Your task to perform on an android device: toggle javascript in the chrome app Image 0: 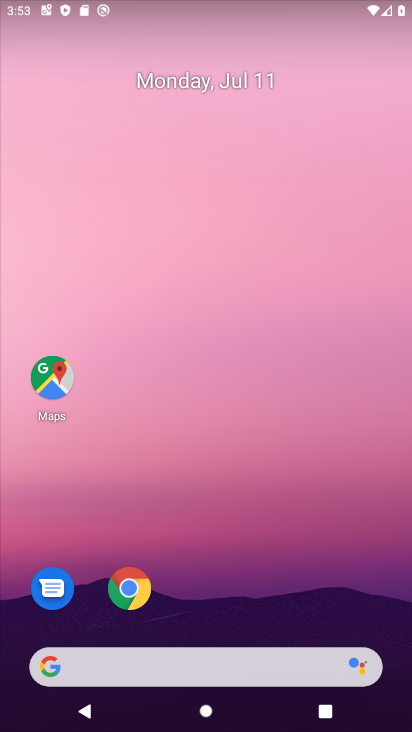
Step 0: press home button
Your task to perform on an android device: toggle javascript in the chrome app Image 1: 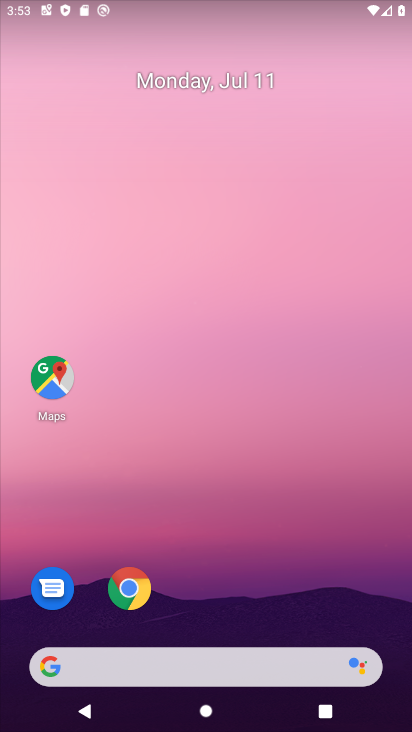
Step 1: drag from (308, 541) to (287, 132)
Your task to perform on an android device: toggle javascript in the chrome app Image 2: 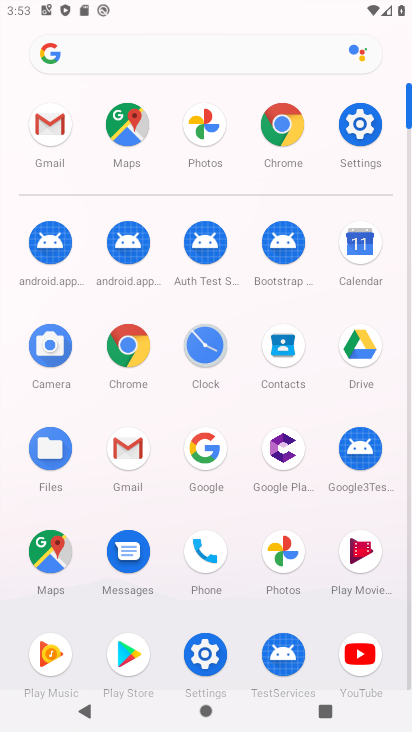
Step 2: click (126, 336)
Your task to perform on an android device: toggle javascript in the chrome app Image 3: 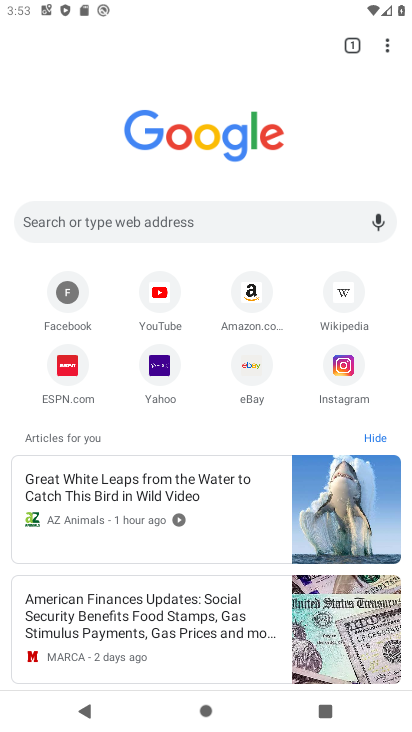
Step 3: drag from (391, 45) to (242, 432)
Your task to perform on an android device: toggle javascript in the chrome app Image 4: 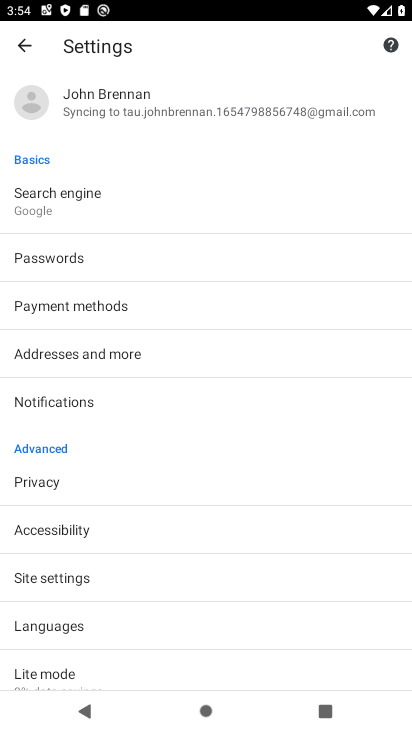
Step 4: click (79, 583)
Your task to perform on an android device: toggle javascript in the chrome app Image 5: 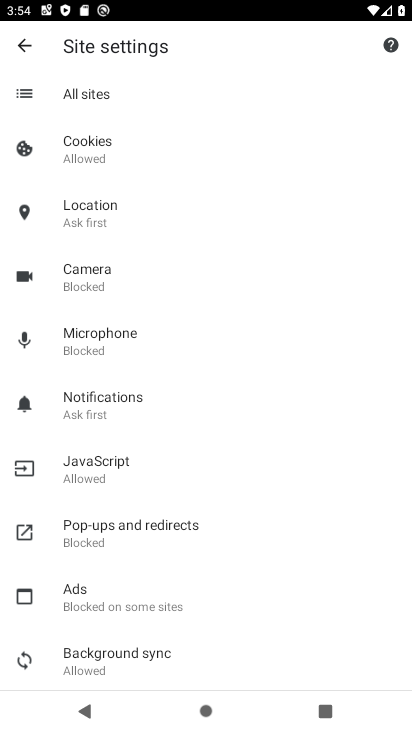
Step 5: click (90, 458)
Your task to perform on an android device: toggle javascript in the chrome app Image 6: 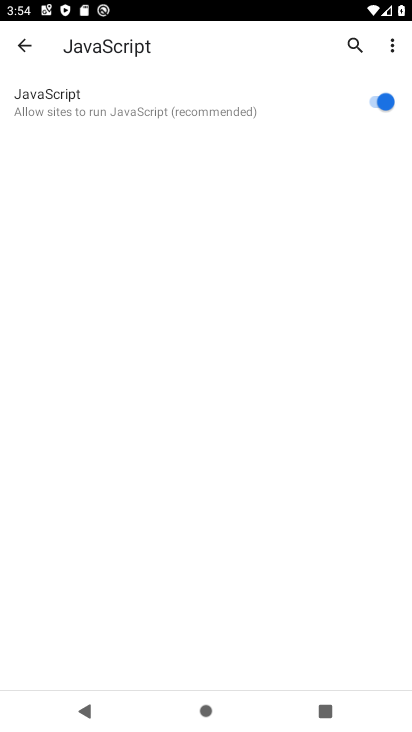
Step 6: click (383, 100)
Your task to perform on an android device: toggle javascript in the chrome app Image 7: 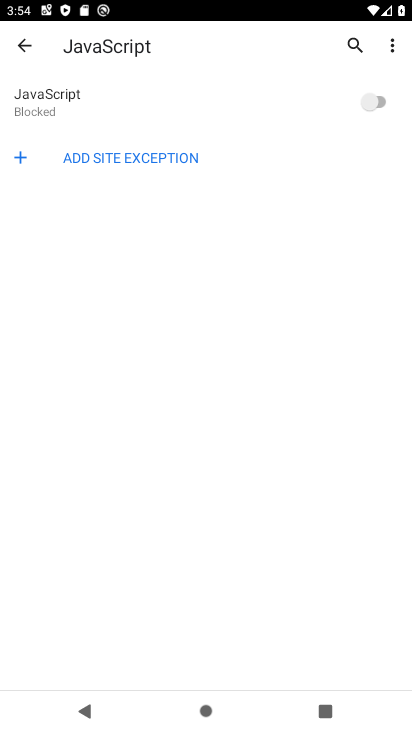
Step 7: task complete